Your task to perform on an android device: uninstall "Fetch Rewards" Image 0: 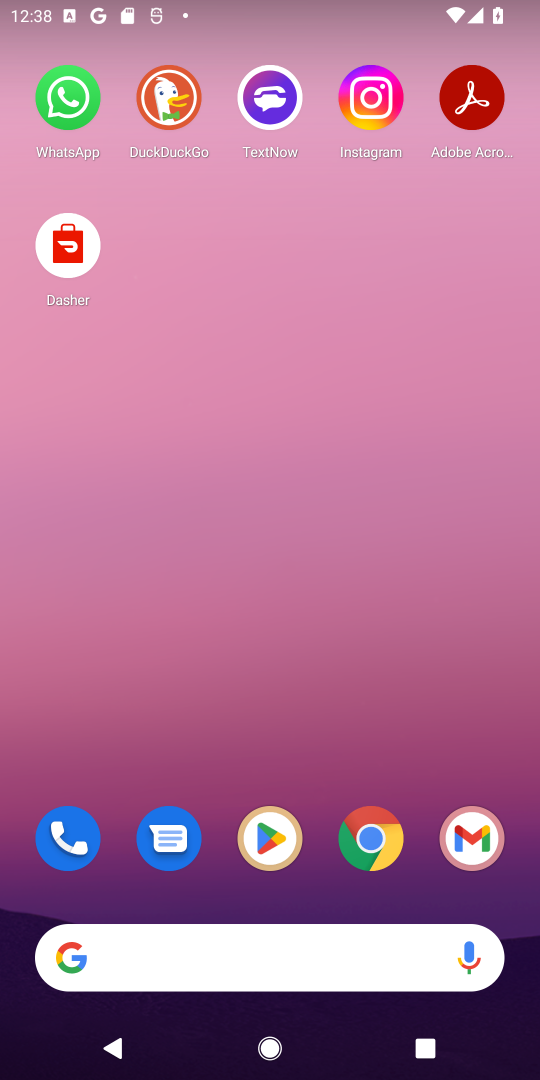
Step 0: click (289, 823)
Your task to perform on an android device: uninstall "Fetch Rewards" Image 1: 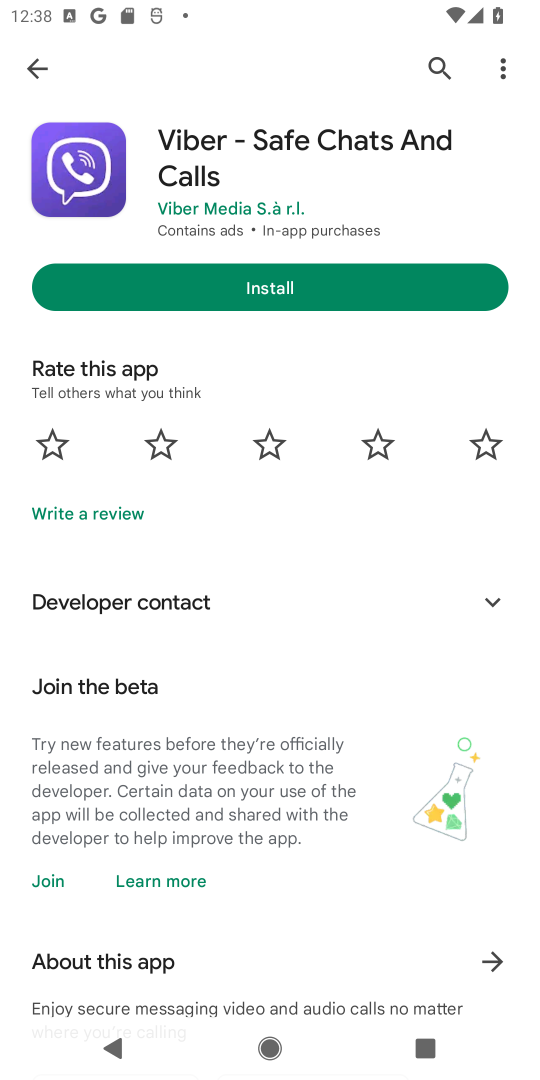
Step 1: click (428, 66)
Your task to perform on an android device: uninstall "Fetch Rewards" Image 2: 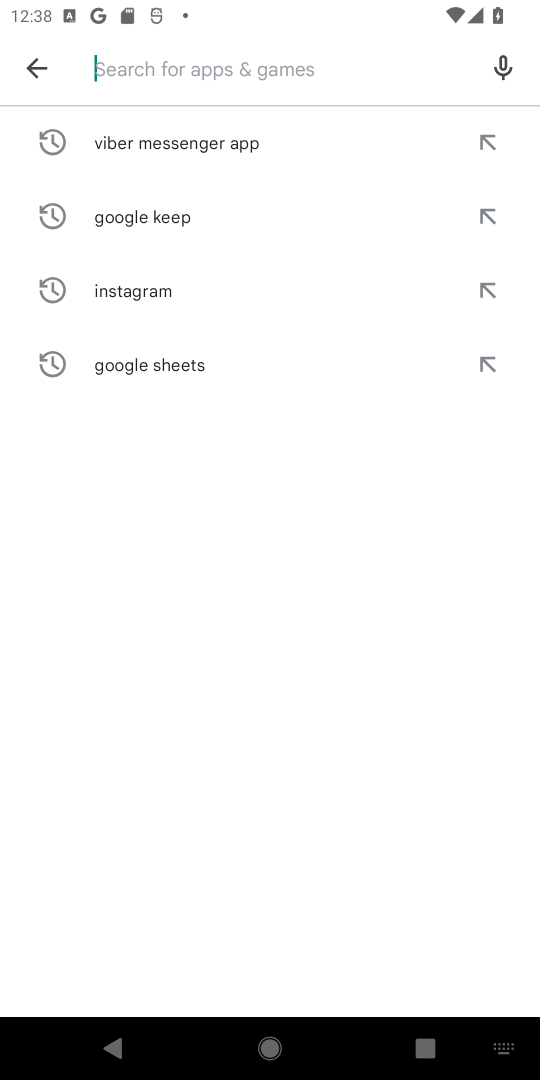
Step 2: type "Fetch Rewards"
Your task to perform on an android device: uninstall "Fetch Rewards" Image 3: 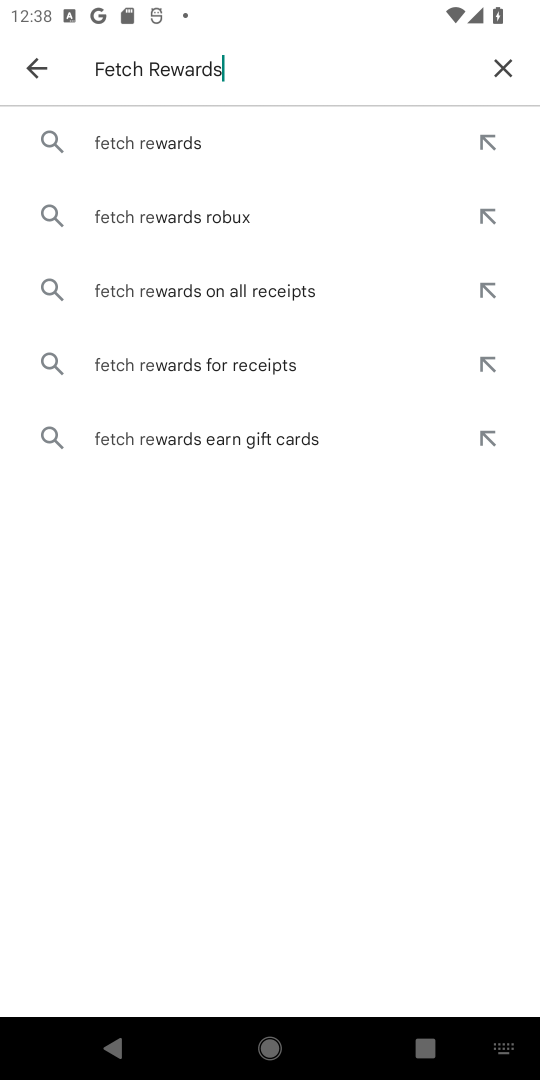
Step 3: type ""
Your task to perform on an android device: uninstall "Fetch Rewards" Image 4: 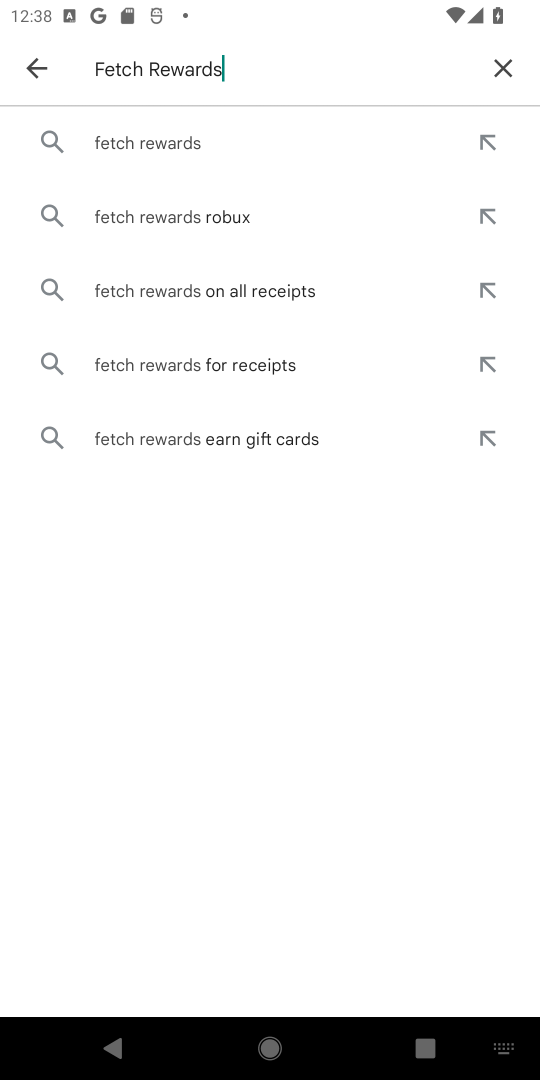
Step 4: click (164, 128)
Your task to perform on an android device: uninstall "Fetch Rewards" Image 5: 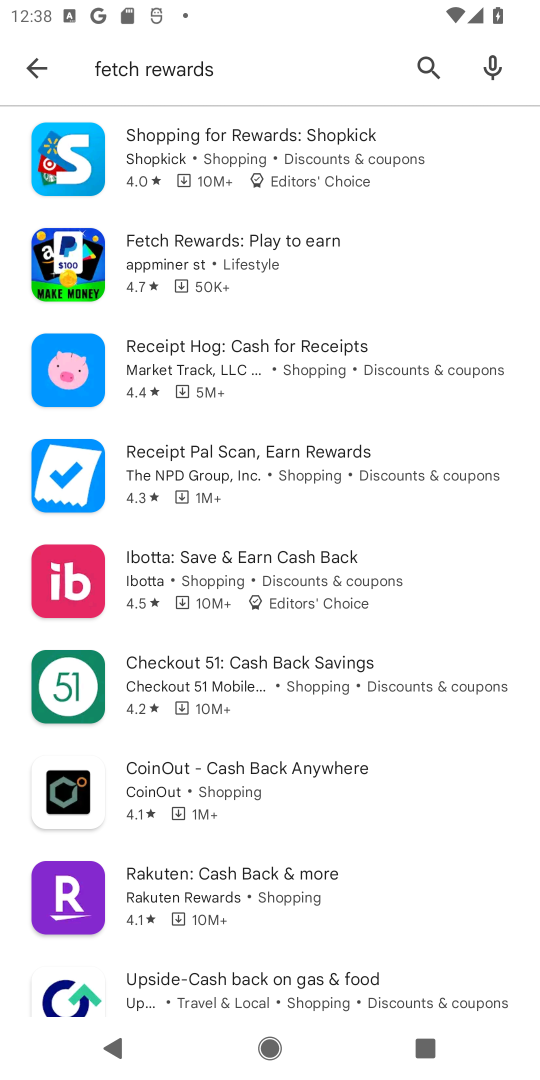
Step 5: task complete